Your task to perform on an android device: Search for Italian restaurants on Maps Image 0: 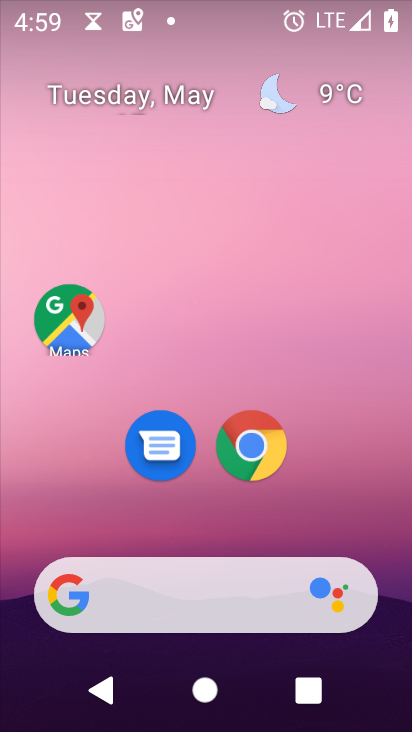
Step 0: drag from (293, 609) to (314, 128)
Your task to perform on an android device: Search for Italian restaurants on Maps Image 1: 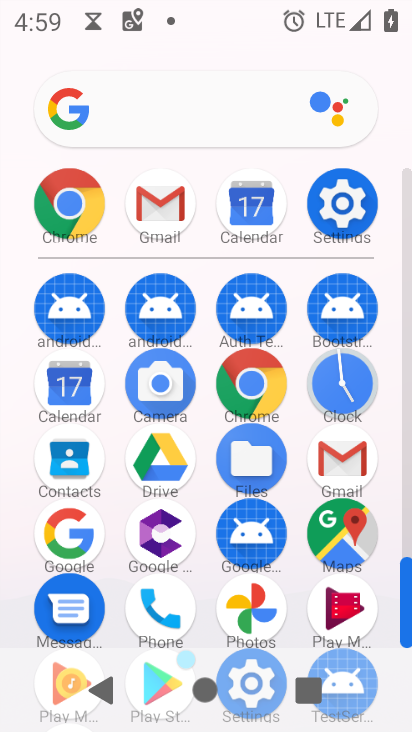
Step 1: click (338, 546)
Your task to perform on an android device: Search for Italian restaurants on Maps Image 2: 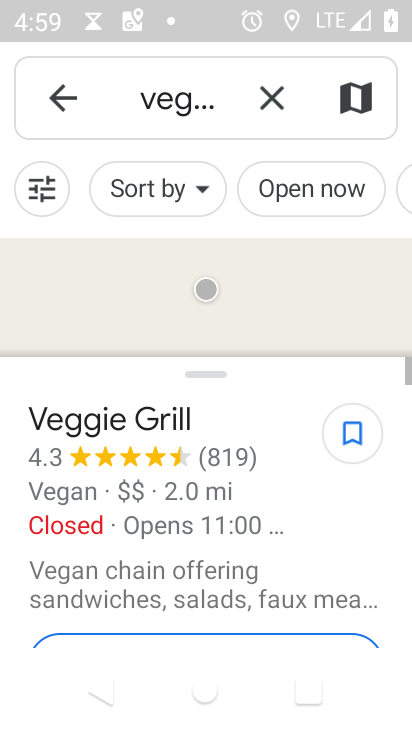
Step 2: click (281, 96)
Your task to perform on an android device: Search for Italian restaurants on Maps Image 3: 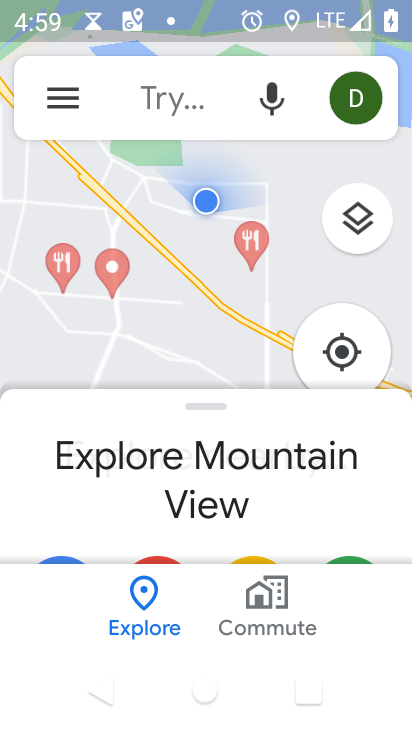
Step 3: click (203, 98)
Your task to perform on an android device: Search for Italian restaurants on Maps Image 4: 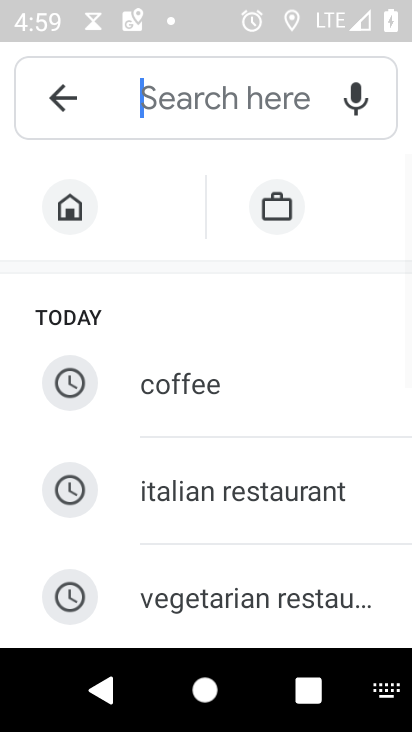
Step 4: click (259, 487)
Your task to perform on an android device: Search for Italian restaurants on Maps Image 5: 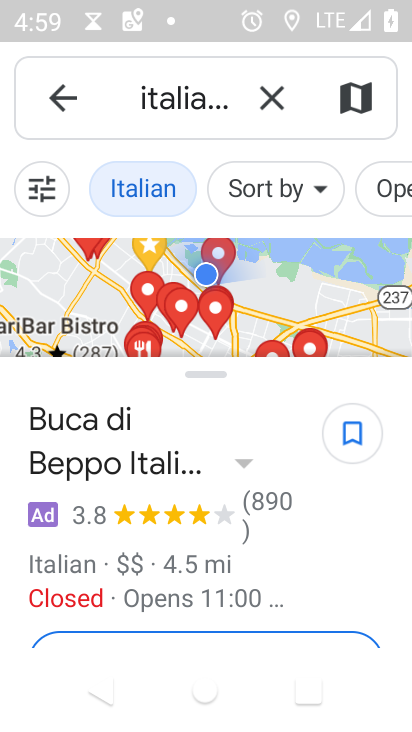
Step 5: task complete